Your task to perform on an android device: turn pop-ups on in chrome Image 0: 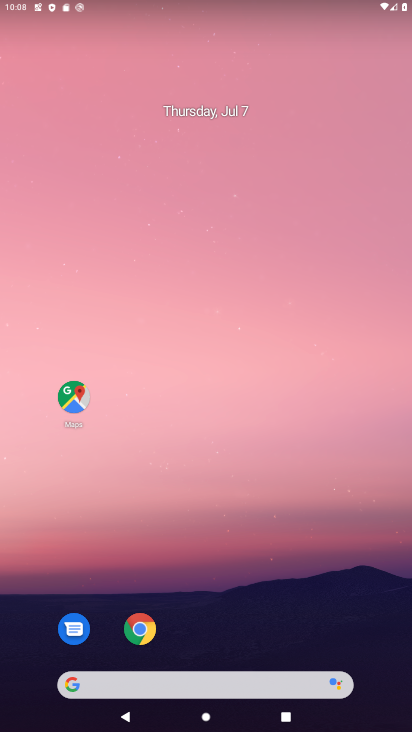
Step 0: press home button
Your task to perform on an android device: turn pop-ups on in chrome Image 1: 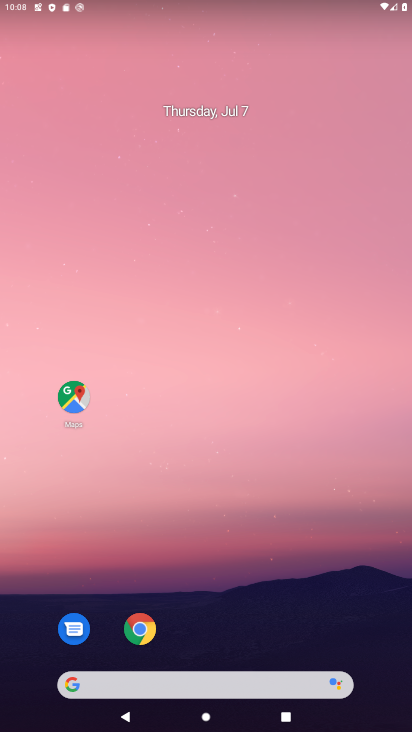
Step 1: drag from (234, 621) to (221, 169)
Your task to perform on an android device: turn pop-ups on in chrome Image 2: 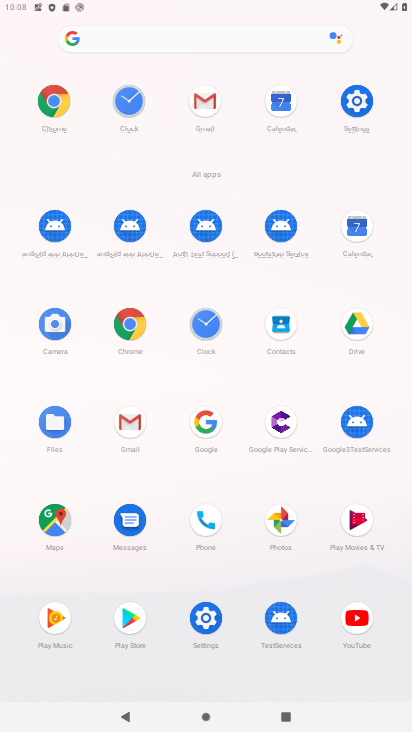
Step 2: click (47, 112)
Your task to perform on an android device: turn pop-ups on in chrome Image 3: 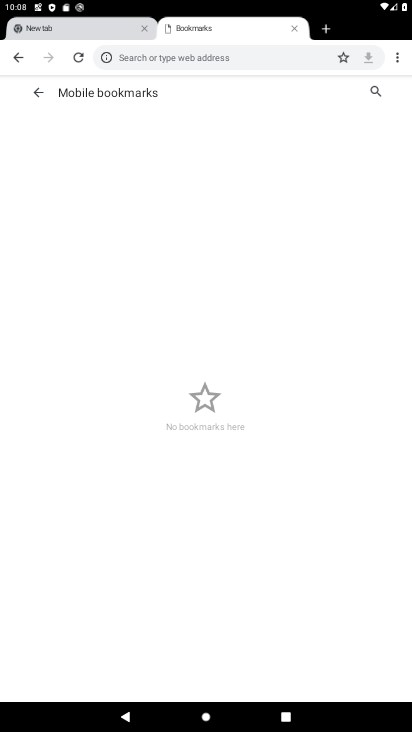
Step 3: drag from (395, 55) to (279, 270)
Your task to perform on an android device: turn pop-ups on in chrome Image 4: 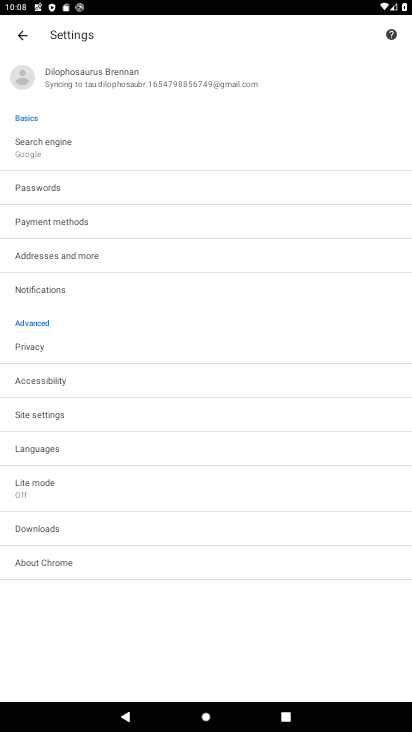
Step 4: click (48, 415)
Your task to perform on an android device: turn pop-ups on in chrome Image 5: 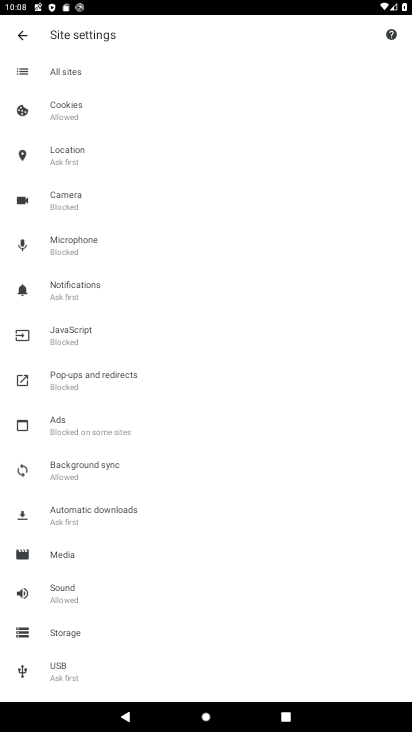
Step 5: click (79, 378)
Your task to perform on an android device: turn pop-ups on in chrome Image 6: 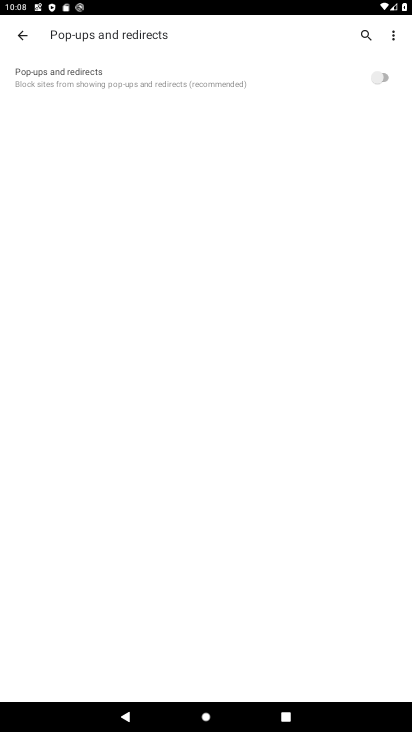
Step 6: click (374, 79)
Your task to perform on an android device: turn pop-ups on in chrome Image 7: 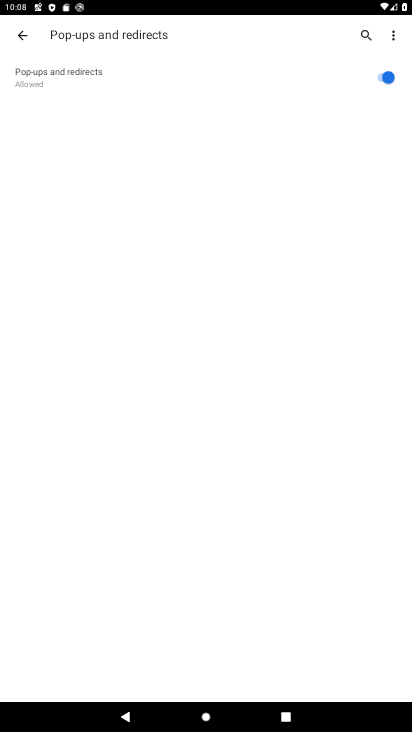
Step 7: task complete